Your task to perform on an android device: change text size in settings app Image 0: 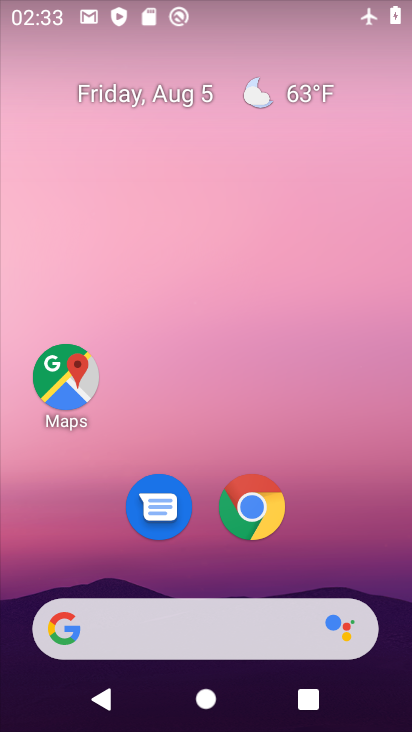
Step 0: drag from (191, 578) to (252, 27)
Your task to perform on an android device: change text size in settings app Image 1: 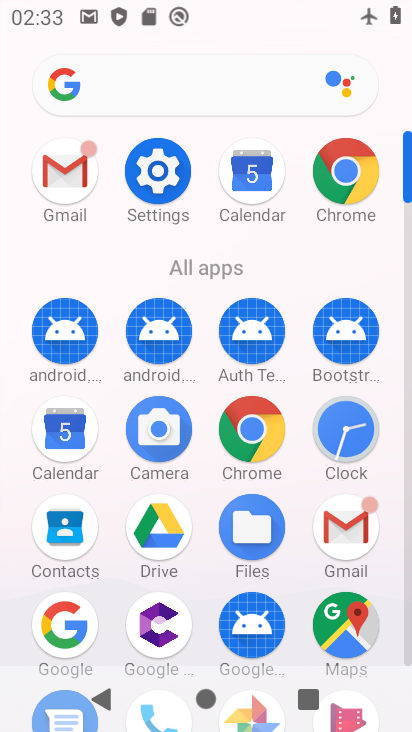
Step 1: click (157, 193)
Your task to perform on an android device: change text size in settings app Image 2: 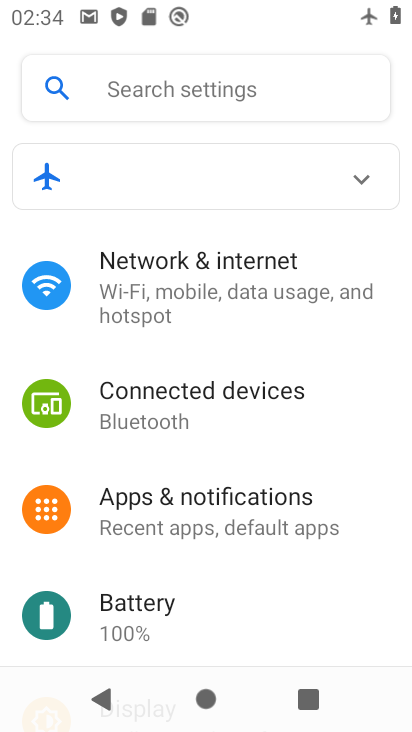
Step 2: drag from (216, 566) to (219, 422)
Your task to perform on an android device: change text size in settings app Image 3: 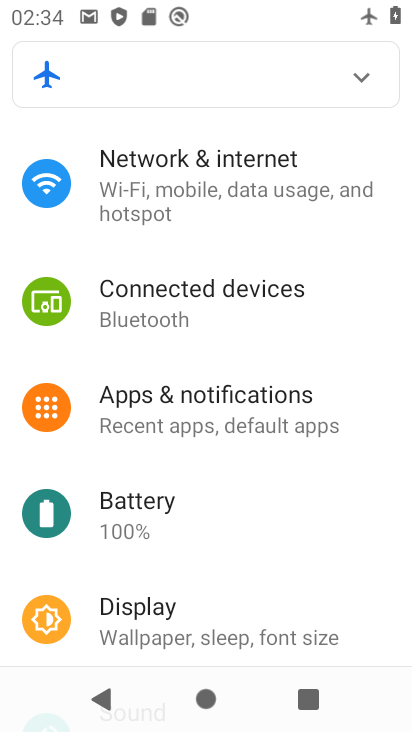
Step 3: click (152, 610)
Your task to perform on an android device: change text size in settings app Image 4: 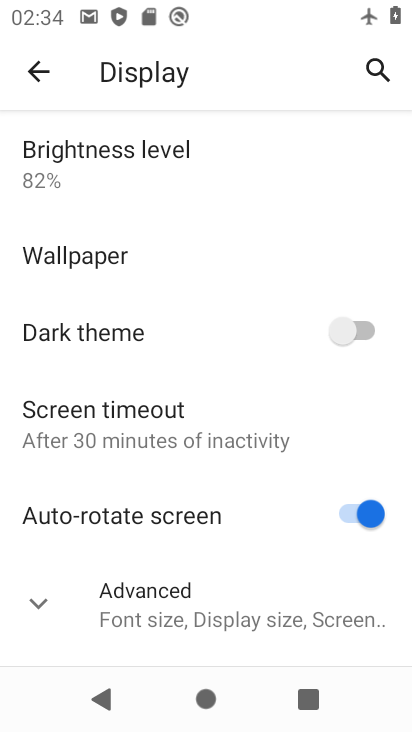
Step 4: click (45, 605)
Your task to perform on an android device: change text size in settings app Image 5: 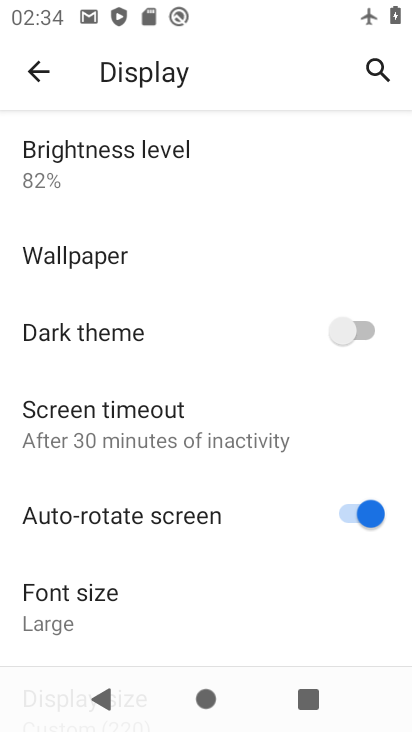
Step 5: click (94, 604)
Your task to perform on an android device: change text size in settings app Image 6: 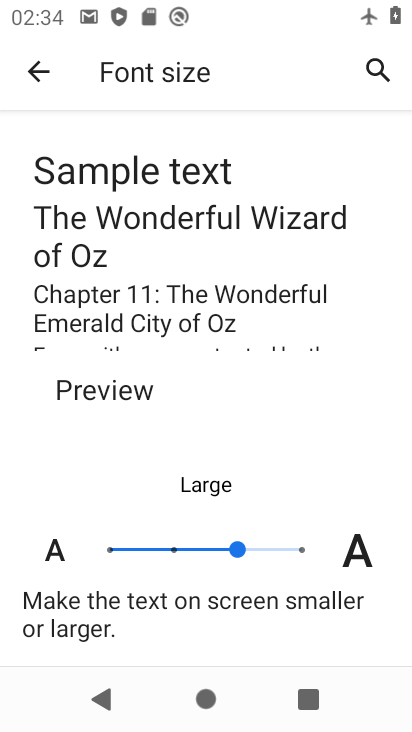
Step 6: click (171, 550)
Your task to perform on an android device: change text size in settings app Image 7: 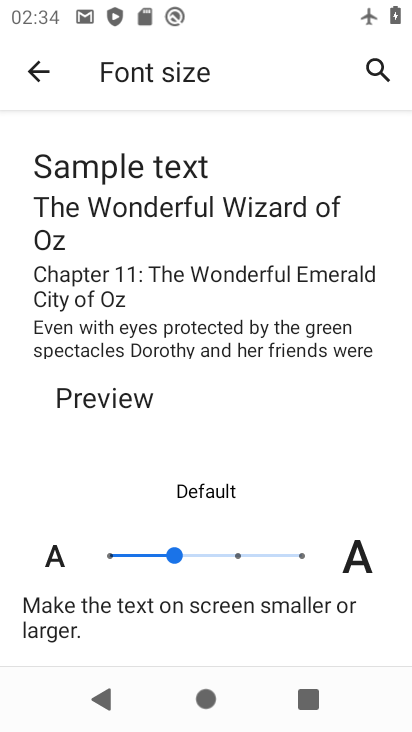
Step 7: task complete